Your task to perform on an android device: Search for pizza restaurants on Maps Image 0: 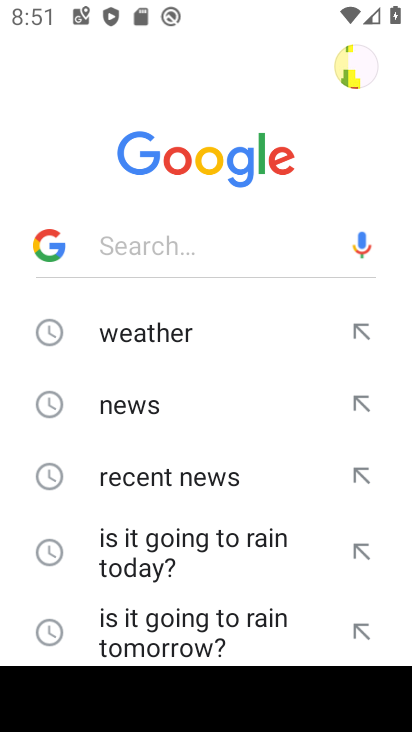
Step 0: press home button
Your task to perform on an android device: Search for pizza restaurants on Maps Image 1: 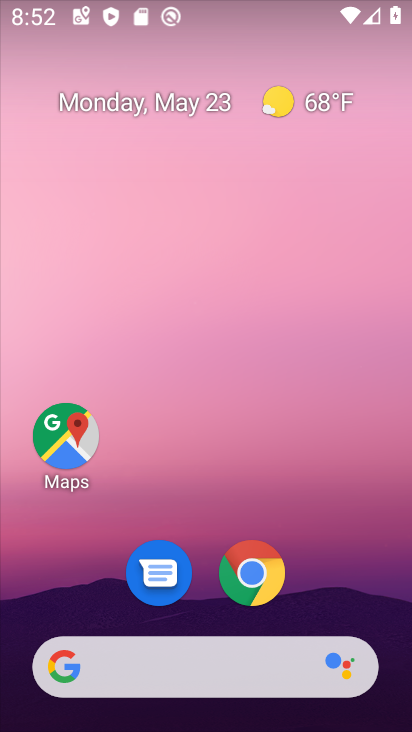
Step 1: click (82, 453)
Your task to perform on an android device: Search for pizza restaurants on Maps Image 2: 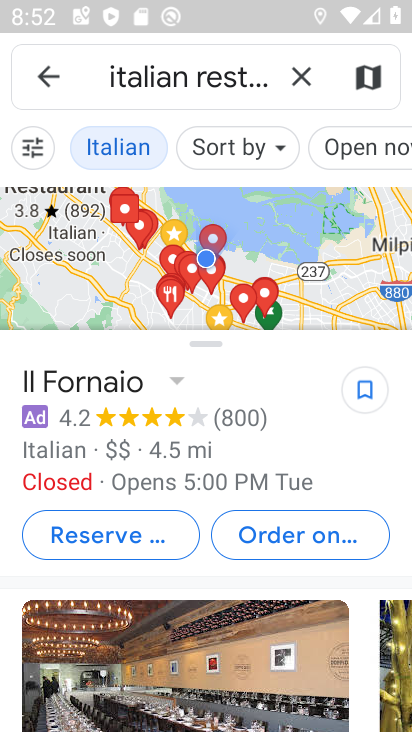
Step 2: click (302, 84)
Your task to perform on an android device: Search for pizza restaurants on Maps Image 3: 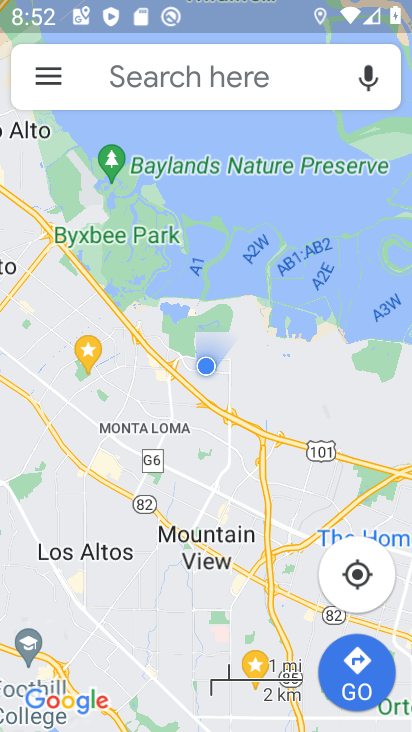
Step 3: click (257, 93)
Your task to perform on an android device: Search for pizza restaurants on Maps Image 4: 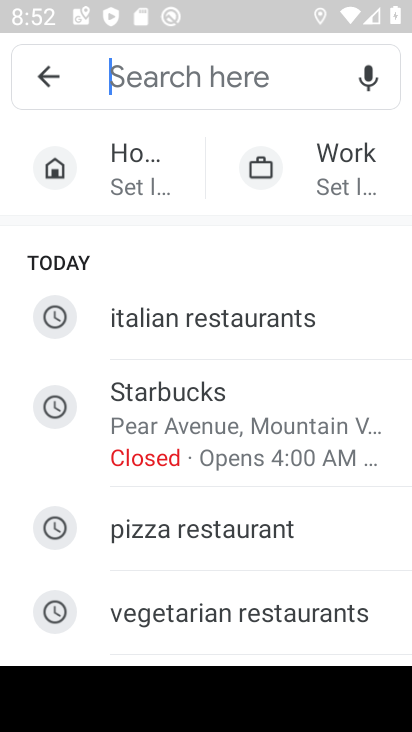
Step 4: click (279, 533)
Your task to perform on an android device: Search for pizza restaurants on Maps Image 5: 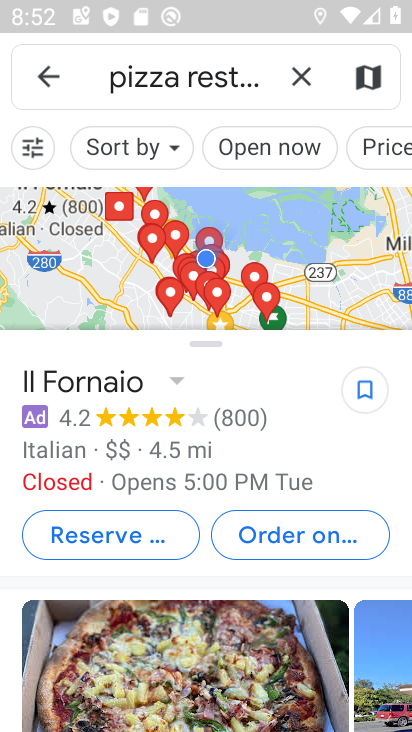
Step 5: task complete